Your task to perform on an android device: refresh tabs in the chrome app Image 0: 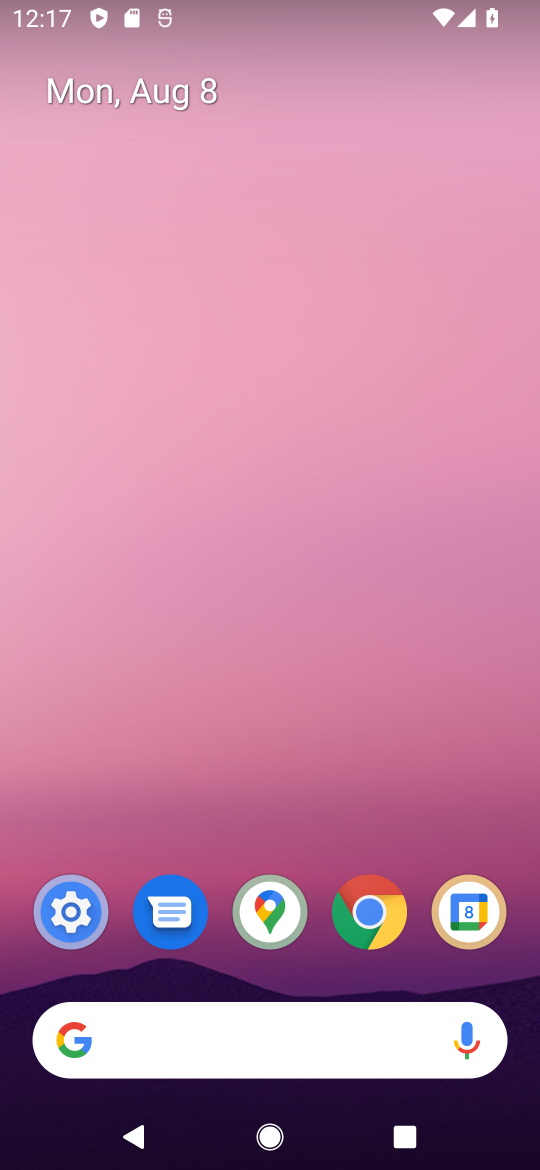
Step 0: click (360, 933)
Your task to perform on an android device: refresh tabs in the chrome app Image 1: 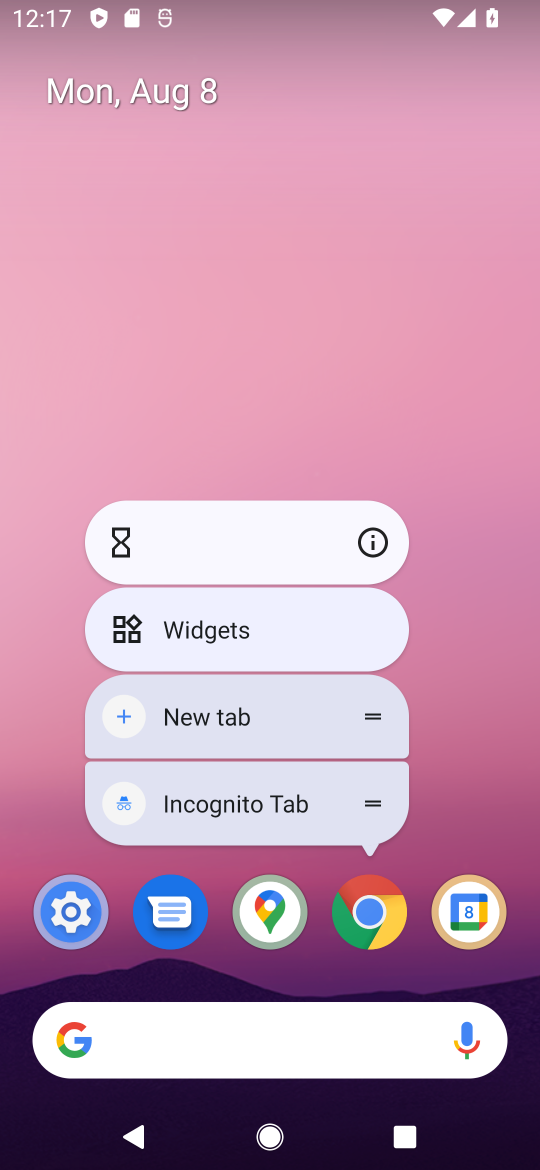
Step 1: click (366, 916)
Your task to perform on an android device: refresh tabs in the chrome app Image 2: 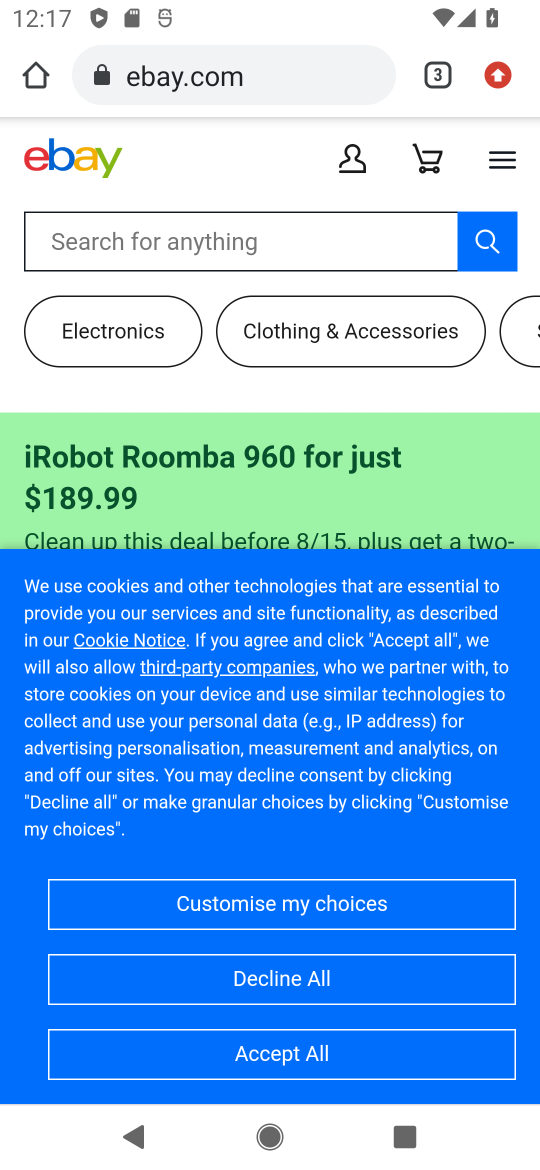
Step 2: click (500, 72)
Your task to perform on an android device: refresh tabs in the chrome app Image 3: 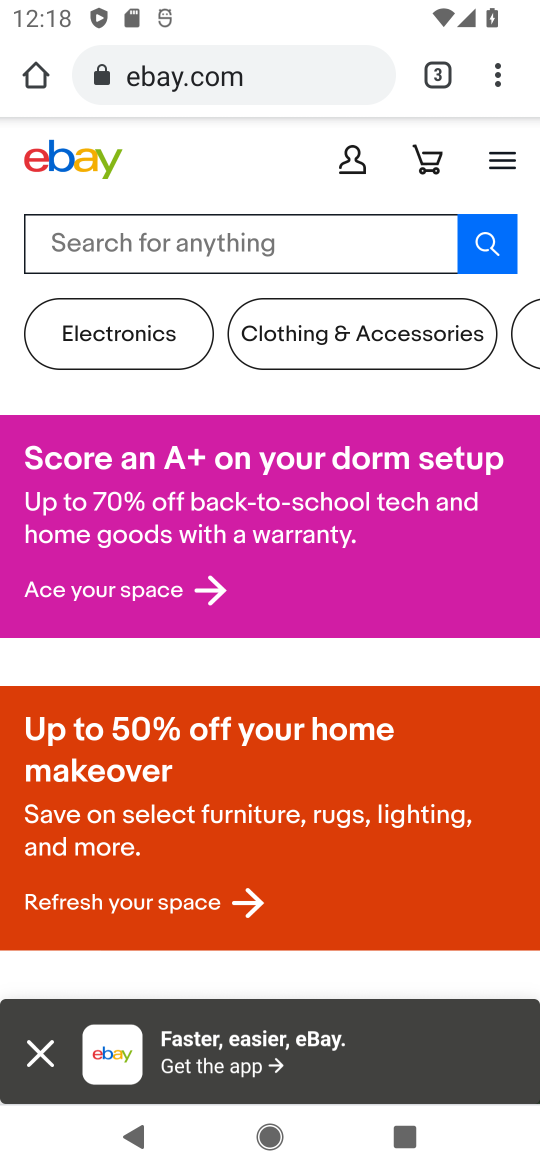
Step 3: task complete